Your task to perform on an android device: open a new tab in the chrome app Image 0: 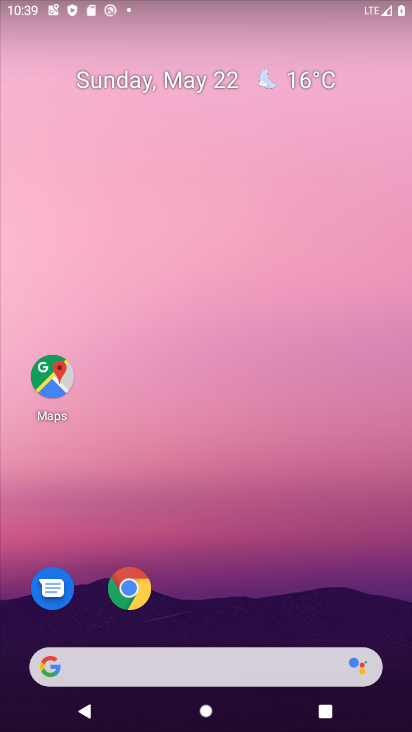
Step 0: click (140, 586)
Your task to perform on an android device: open a new tab in the chrome app Image 1: 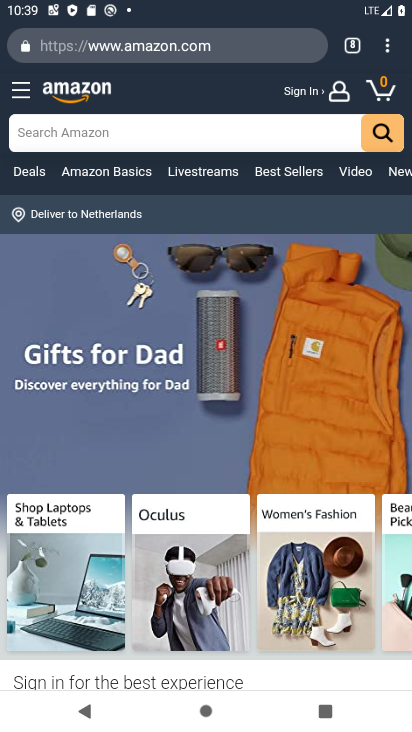
Step 1: click (348, 45)
Your task to perform on an android device: open a new tab in the chrome app Image 2: 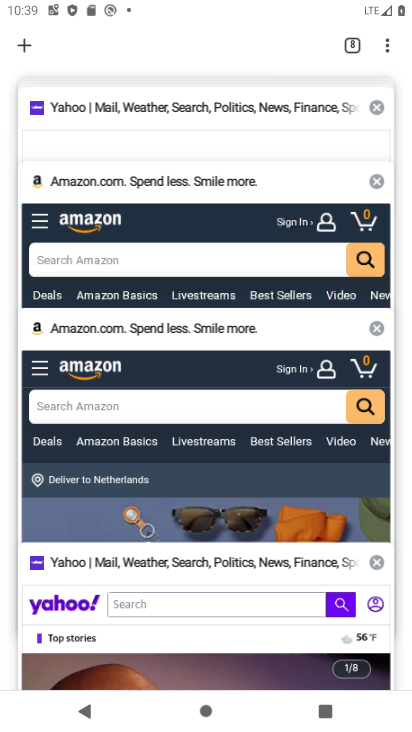
Step 2: click (28, 42)
Your task to perform on an android device: open a new tab in the chrome app Image 3: 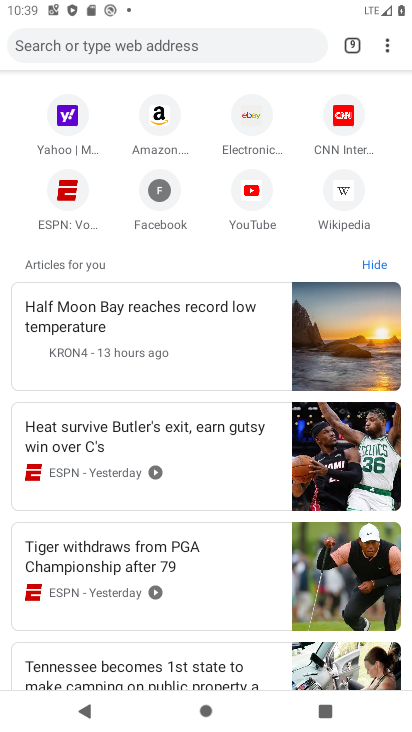
Step 3: task complete